Your task to perform on an android device: Toggle the flashlight Image 0: 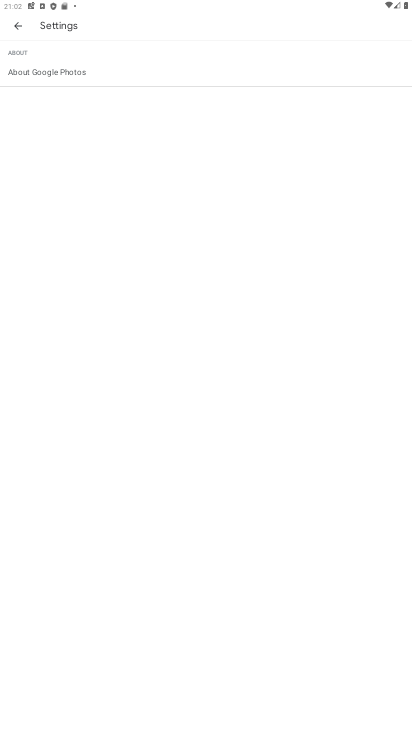
Step 0: press home button
Your task to perform on an android device: Toggle the flashlight Image 1: 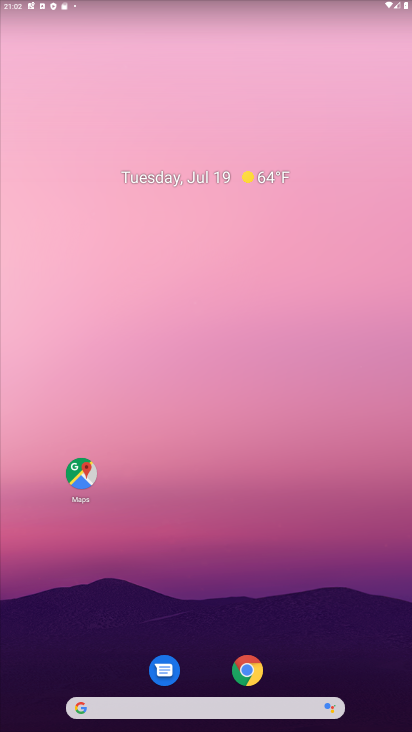
Step 1: task complete